Your task to perform on an android device: Open internet settings Image 0: 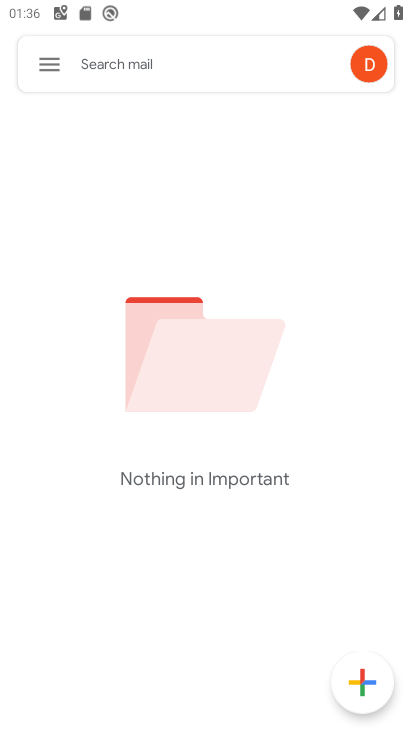
Step 0: press home button
Your task to perform on an android device: Open internet settings Image 1: 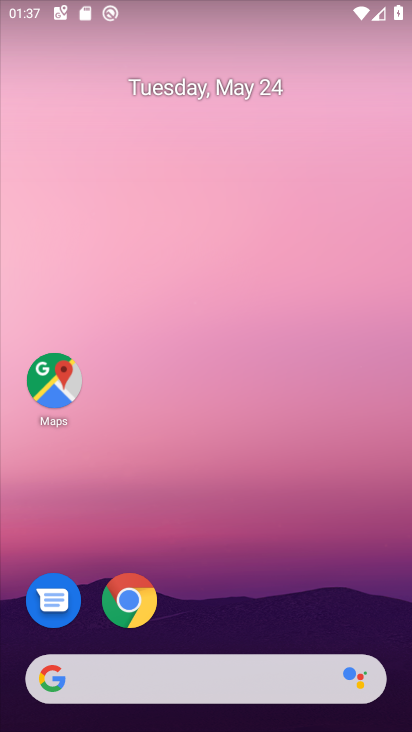
Step 1: drag from (270, 506) to (330, 4)
Your task to perform on an android device: Open internet settings Image 2: 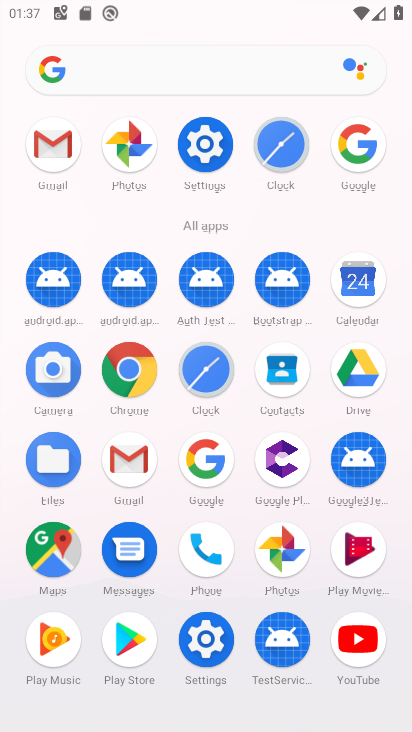
Step 2: click (213, 150)
Your task to perform on an android device: Open internet settings Image 3: 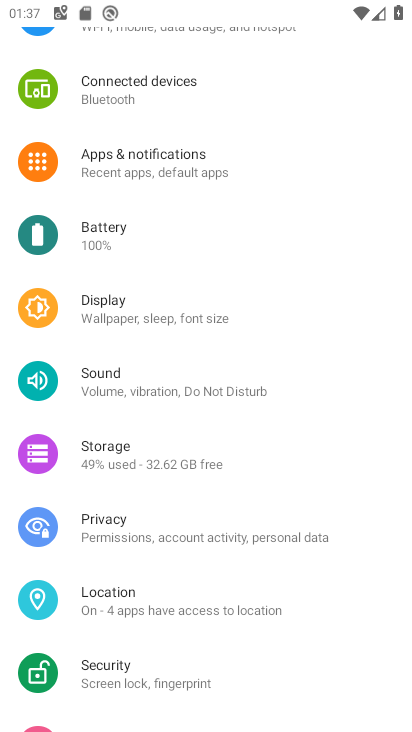
Step 3: drag from (255, 260) to (233, 584)
Your task to perform on an android device: Open internet settings Image 4: 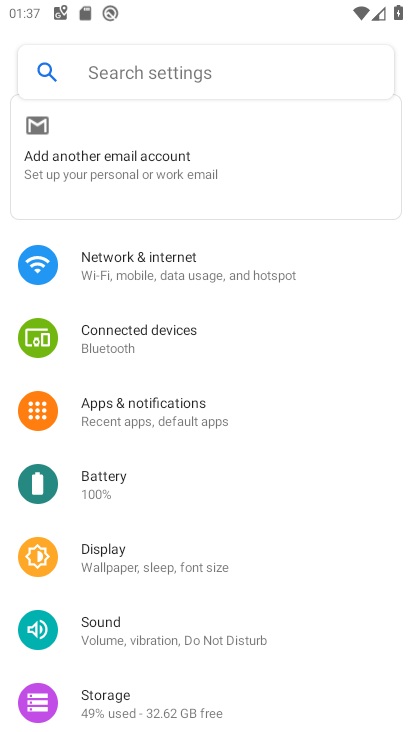
Step 4: click (244, 291)
Your task to perform on an android device: Open internet settings Image 5: 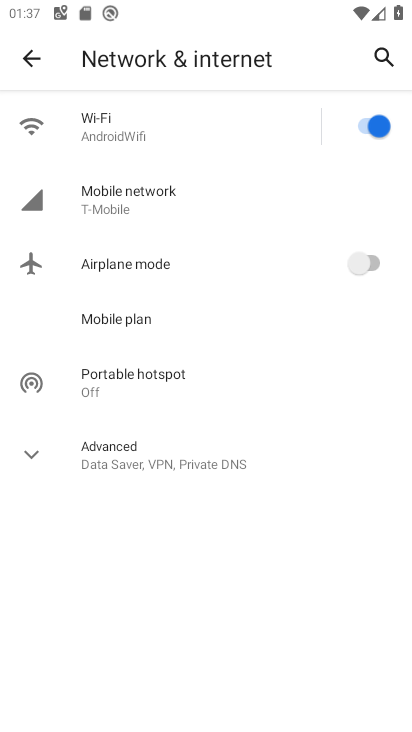
Step 5: task complete